Your task to perform on an android device: Do I have any events today? Image 0: 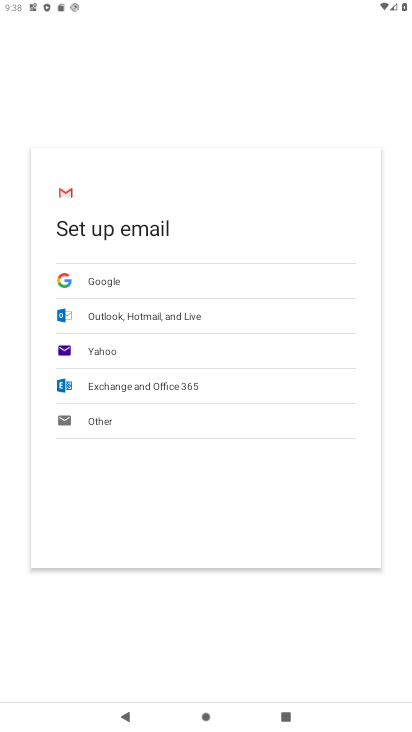
Step 0: press home button
Your task to perform on an android device: Do I have any events today? Image 1: 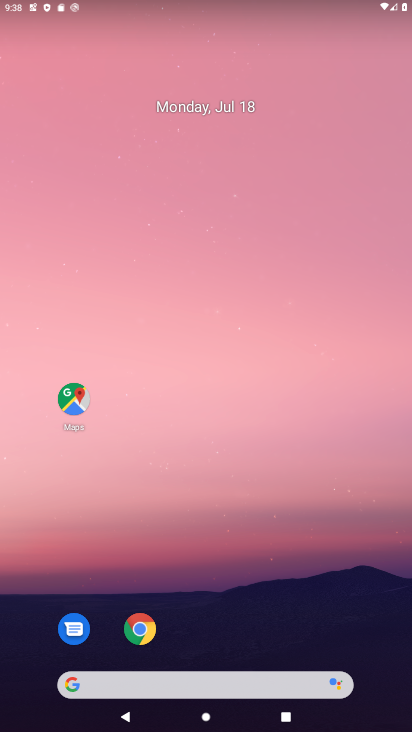
Step 1: drag from (277, 568) to (181, 128)
Your task to perform on an android device: Do I have any events today? Image 2: 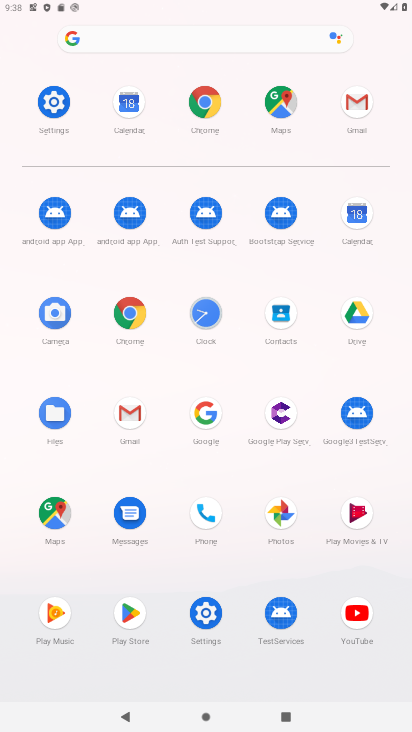
Step 2: click (355, 217)
Your task to perform on an android device: Do I have any events today? Image 3: 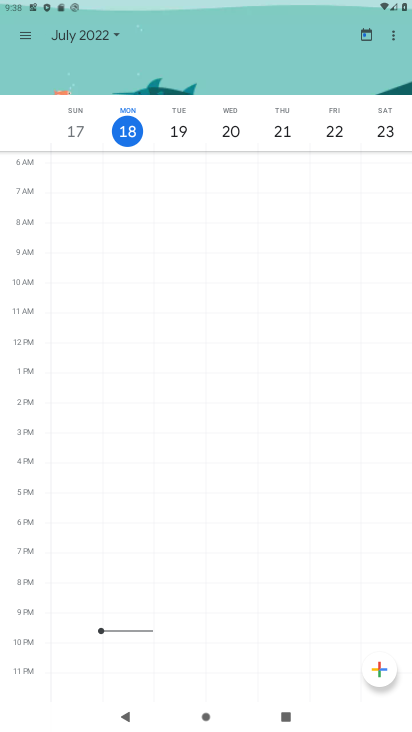
Step 3: click (182, 135)
Your task to perform on an android device: Do I have any events today? Image 4: 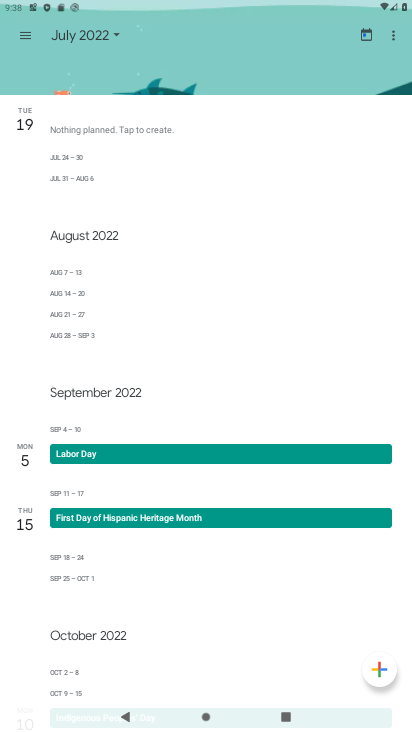
Step 4: task complete